Your task to perform on an android device: turn pop-ups off in chrome Image 0: 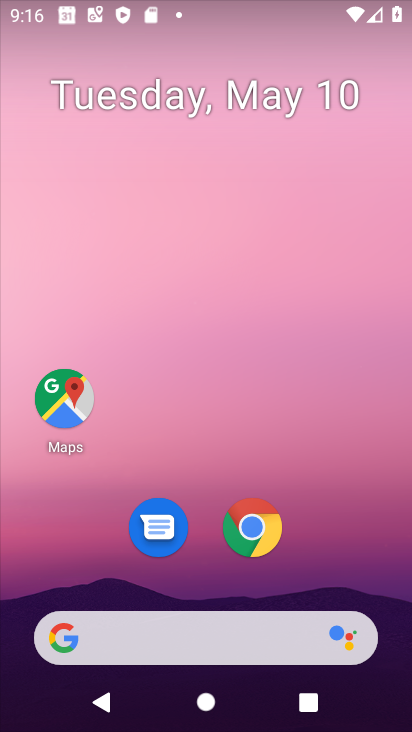
Step 0: click (274, 536)
Your task to perform on an android device: turn pop-ups off in chrome Image 1: 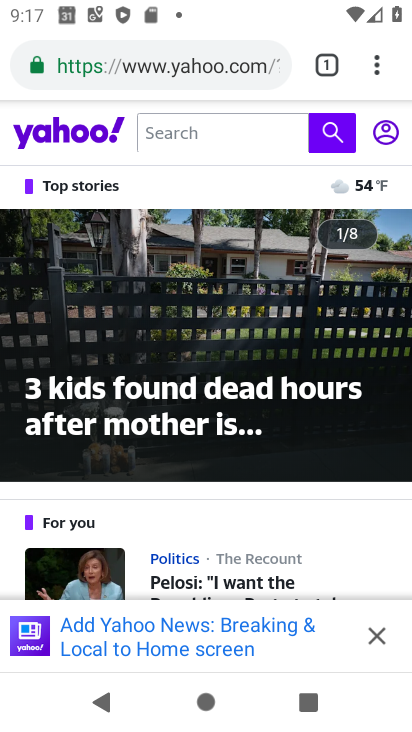
Step 1: click (383, 55)
Your task to perform on an android device: turn pop-ups off in chrome Image 2: 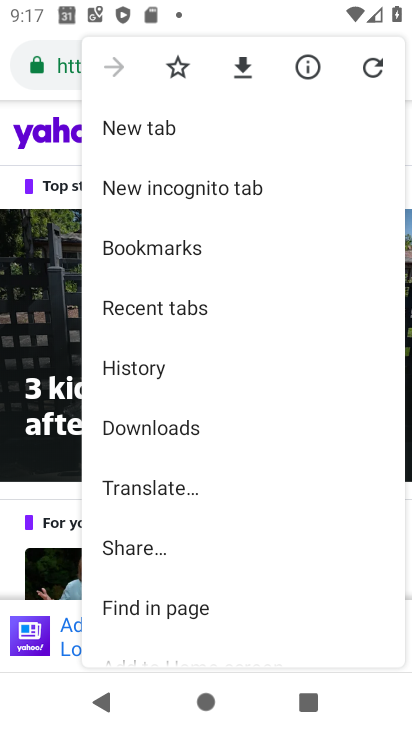
Step 2: click (231, 277)
Your task to perform on an android device: turn pop-ups off in chrome Image 3: 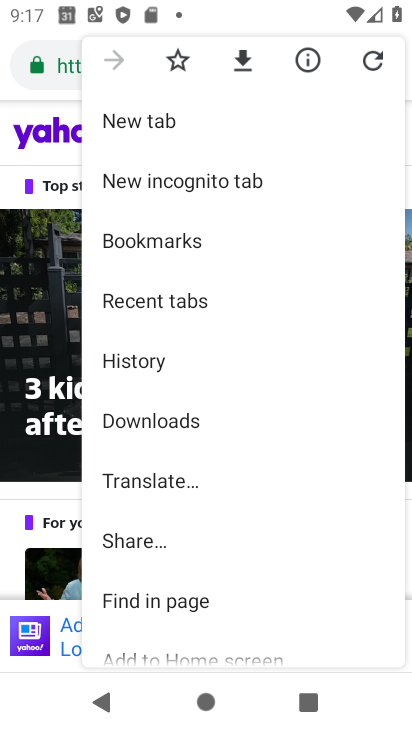
Step 3: drag from (236, 586) to (219, 355)
Your task to perform on an android device: turn pop-ups off in chrome Image 4: 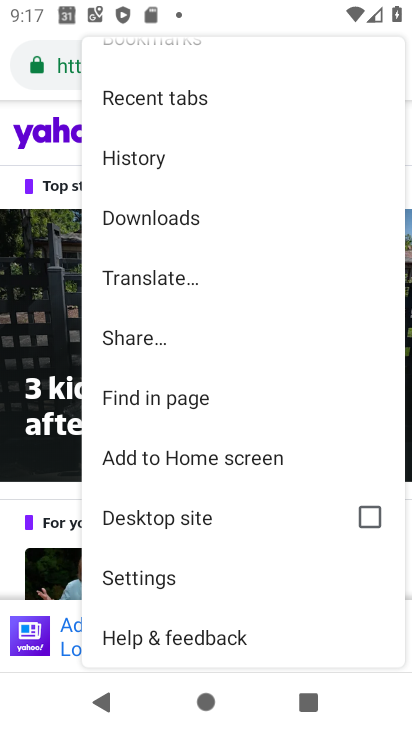
Step 4: click (167, 581)
Your task to perform on an android device: turn pop-ups off in chrome Image 5: 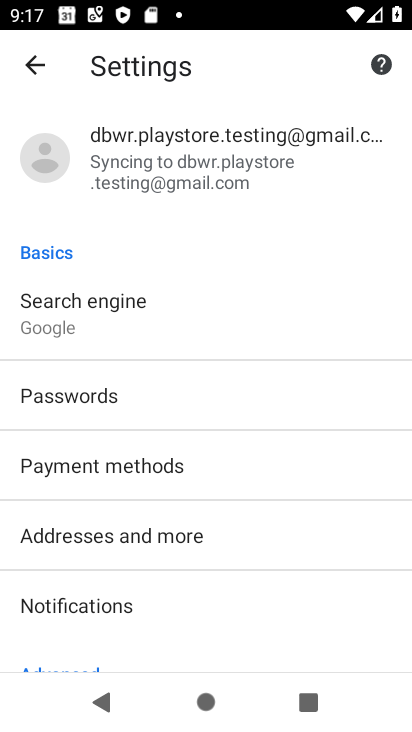
Step 5: drag from (187, 590) to (229, 373)
Your task to perform on an android device: turn pop-ups off in chrome Image 6: 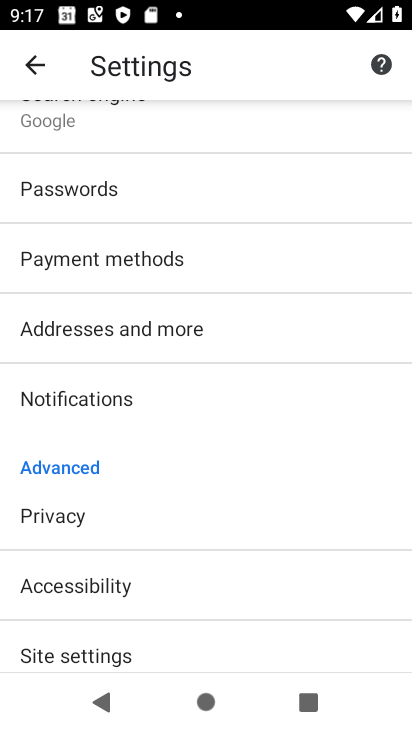
Step 6: drag from (218, 594) to (248, 403)
Your task to perform on an android device: turn pop-ups off in chrome Image 7: 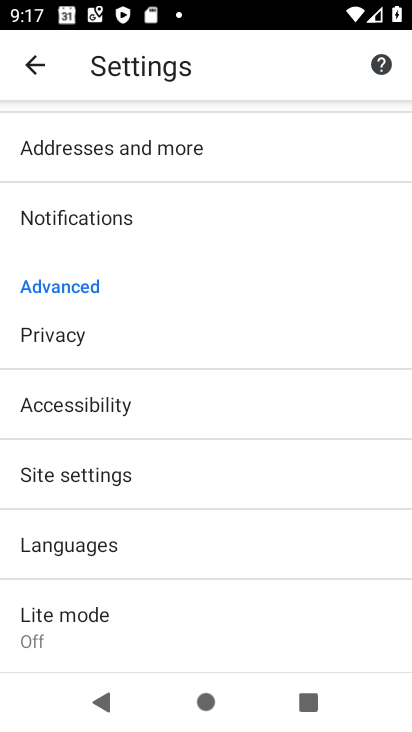
Step 7: click (120, 482)
Your task to perform on an android device: turn pop-ups off in chrome Image 8: 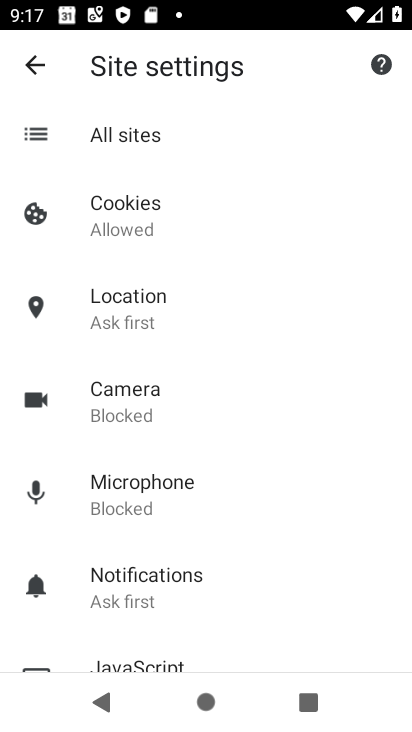
Step 8: drag from (218, 593) to (235, 410)
Your task to perform on an android device: turn pop-ups off in chrome Image 9: 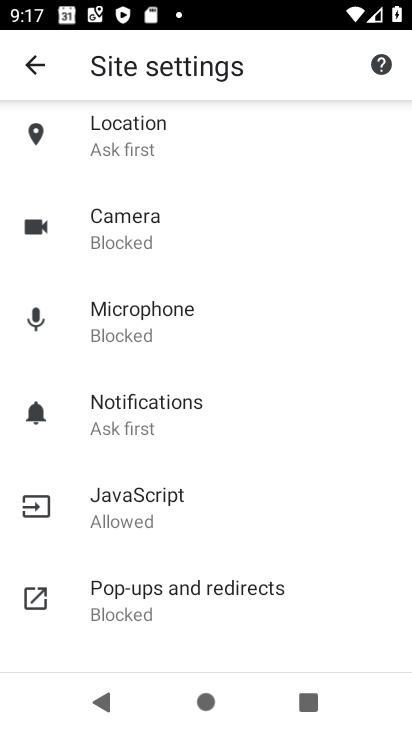
Step 9: click (201, 601)
Your task to perform on an android device: turn pop-ups off in chrome Image 10: 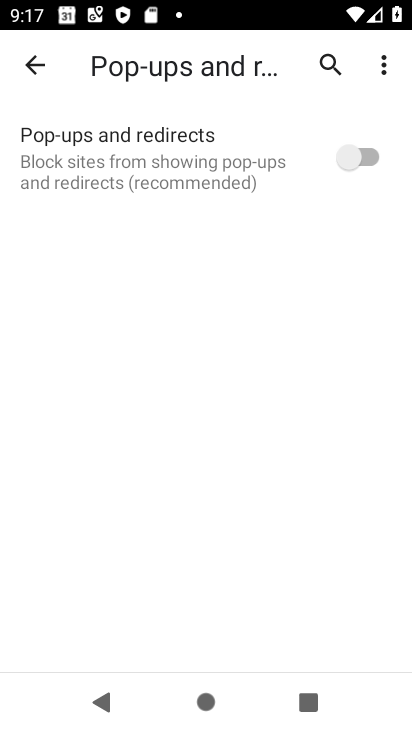
Step 10: task complete